Your task to perform on an android device: toggle show notifications on the lock screen Image 0: 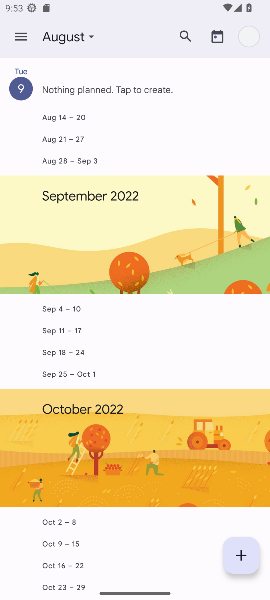
Step 0: press home button
Your task to perform on an android device: toggle show notifications on the lock screen Image 1: 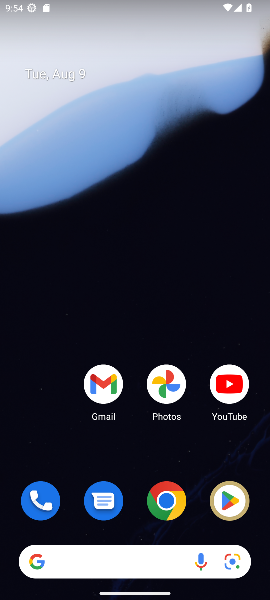
Step 1: drag from (141, 497) to (168, 103)
Your task to perform on an android device: toggle show notifications on the lock screen Image 2: 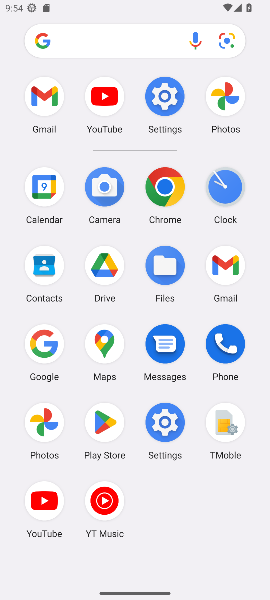
Step 2: click (162, 422)
Your task to perform on an android device: toggle show notifications on the lock screen Image 3: 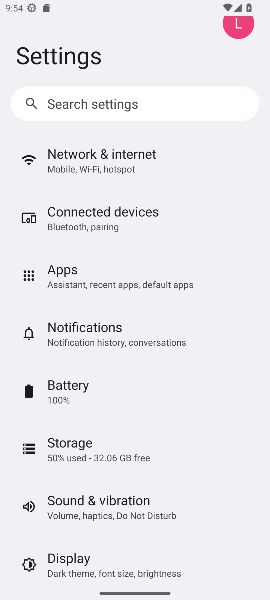
Step 3: click (98, 340)
Your task to perform on an android device: toggle show notifications on the lock screen Image 4: 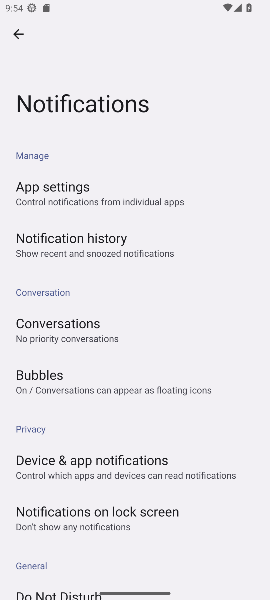
Step 4: click (51, 517)
Your task to perform on an android device: toggle show notifications on the lock screen Image 5: 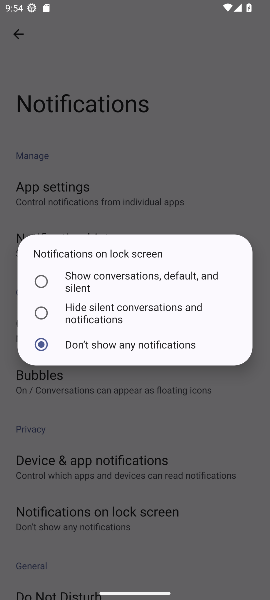
Step 5: click (43, 280)
Your task to perform on an android device: toggle show notifications on the lock screen Image 6: 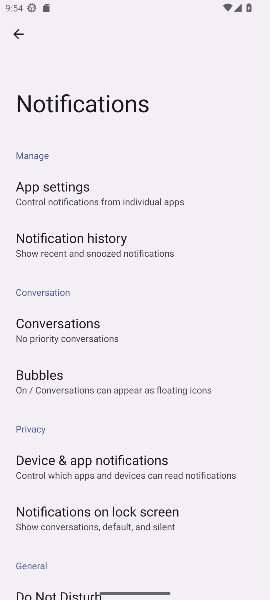
Step 6: task complete